Your task to perform on an android device: turn on javascript in the chrome app Image 0: 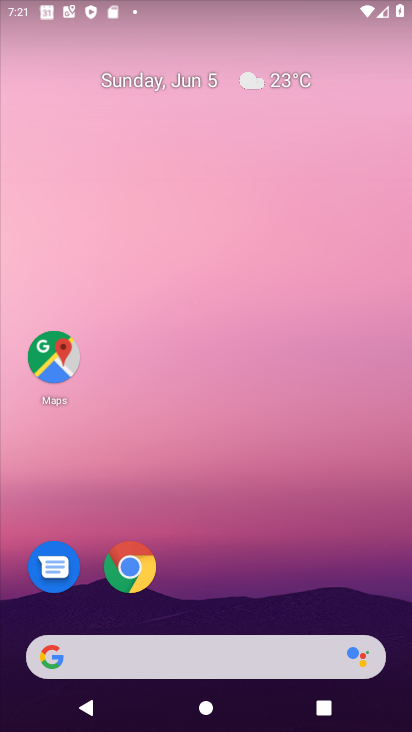
Step 0: drag from (362, 560) to (288, 48)
Your task to perform on an android device: turn on javascript in the chrome app Image 1: 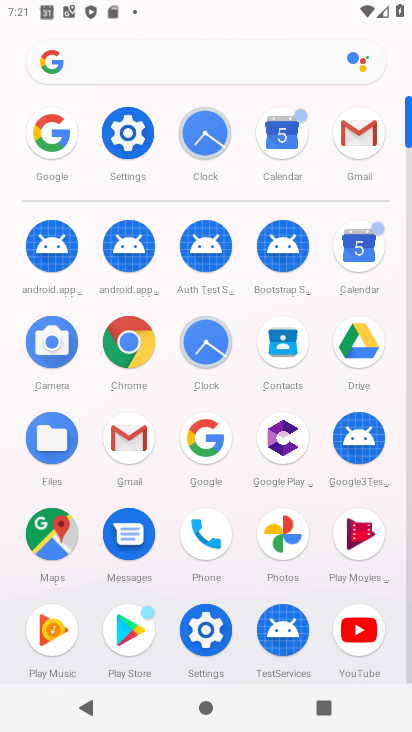
Step 1: click (129, 346)
Your task to perform on an android device: turn on javascript in the chrome app Image 2: 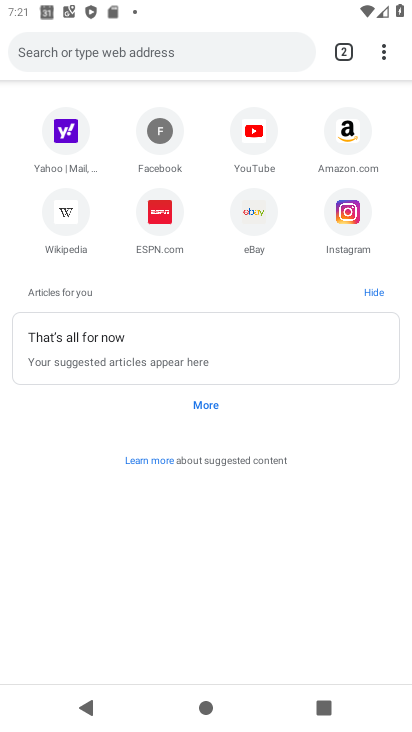
Step 2: click (387, 50)
Your task to perform on an android device: turn on javascript in the chrome app Image 3: 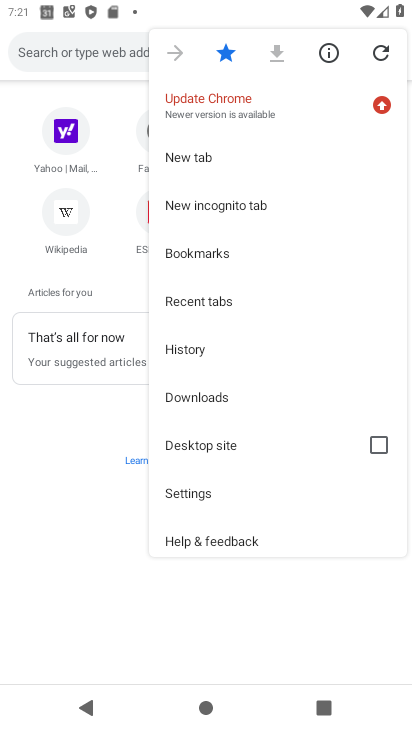
Step 3: click (243, 502)
Your task to perform on an android device: turn on javascript in the chrome app Image 4: 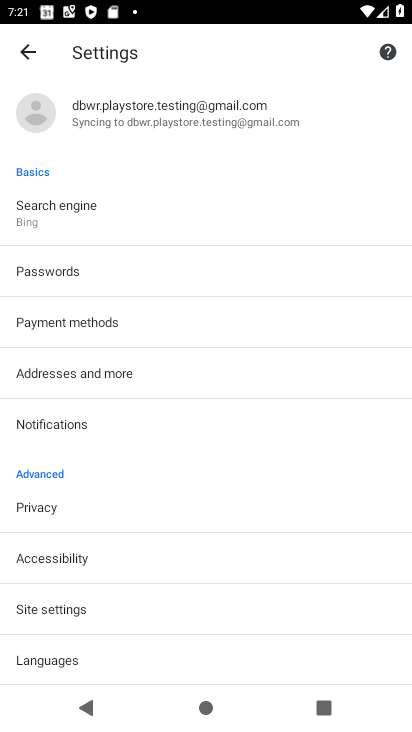
Step 4: click (142, 605)
Your task to perform on an android device: turn on javascript in the chrome app Image 5: 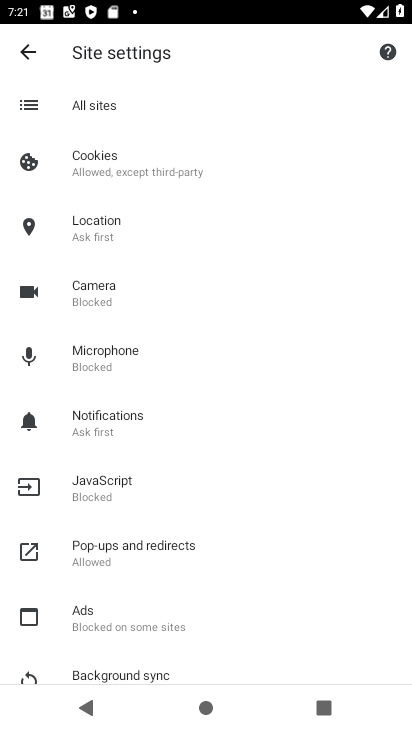
Step 5: click (134, 493)
Your task to perform on an android device: turn on javascript in the chrome app Image 6: 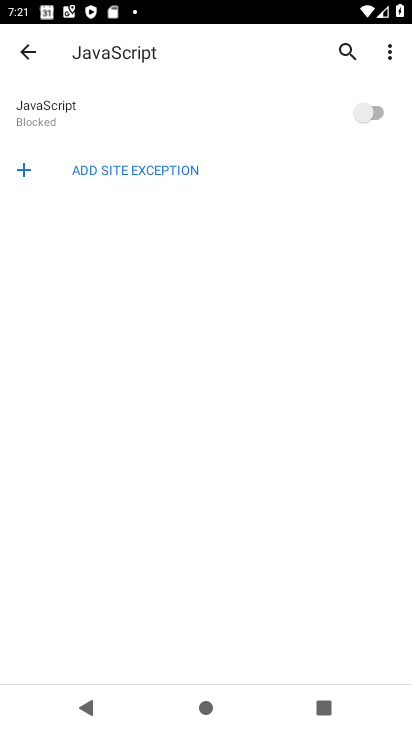
Step 6: click (353, 122)
Your task to perform on an android device: turn on javascript in the chrome app Image 7: 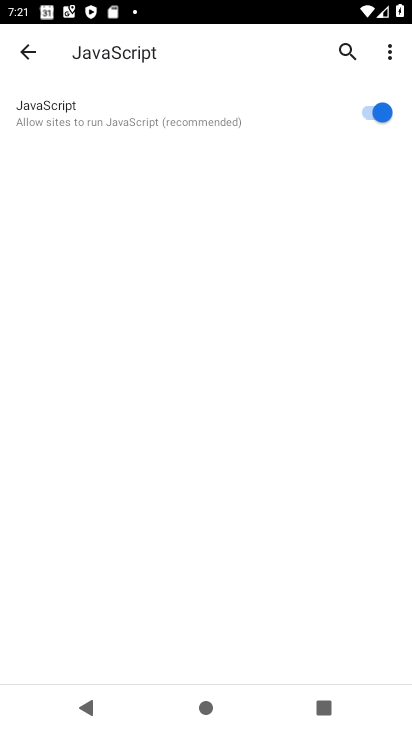
Step 7: task complete